Your task to perform on an android device: turn notification dots on Image 0: 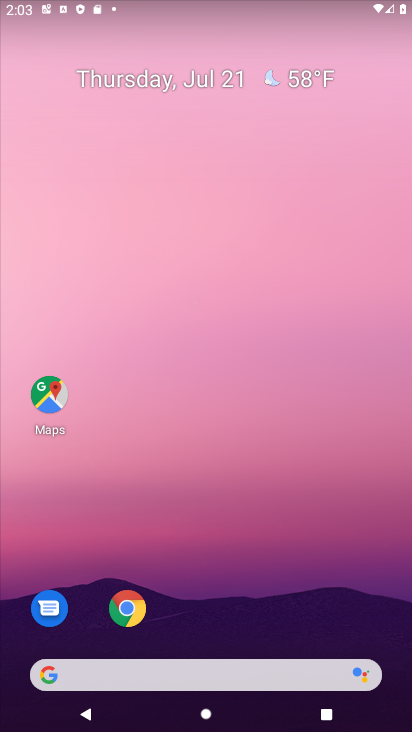
Step 0: drag from (388, 625) to (241, 53)
Your task to perform on an android device: turn notification dots on Image 1: 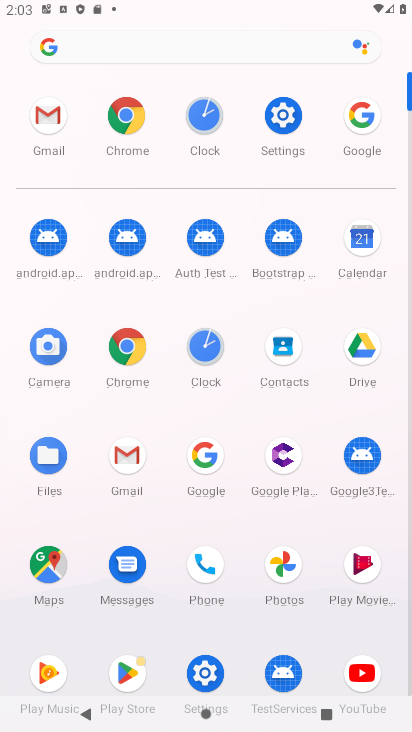
Step 1: click (278, 120)
Your task to perform on an android device: turn notification dots on Image 2: 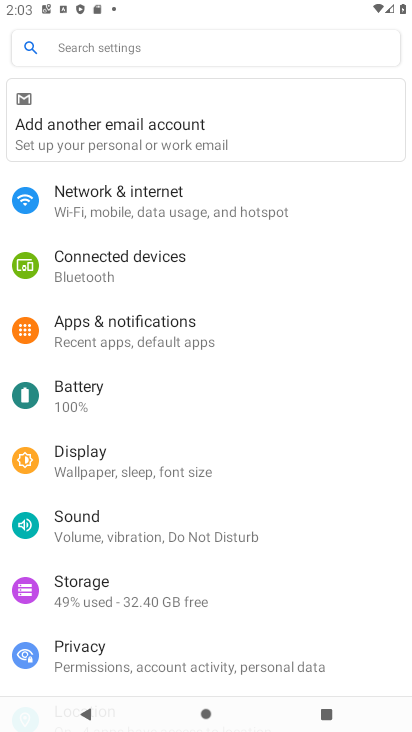
Step 2: click (186, 326)
Your task to perform on an android device: turn notification dots on Image 3: 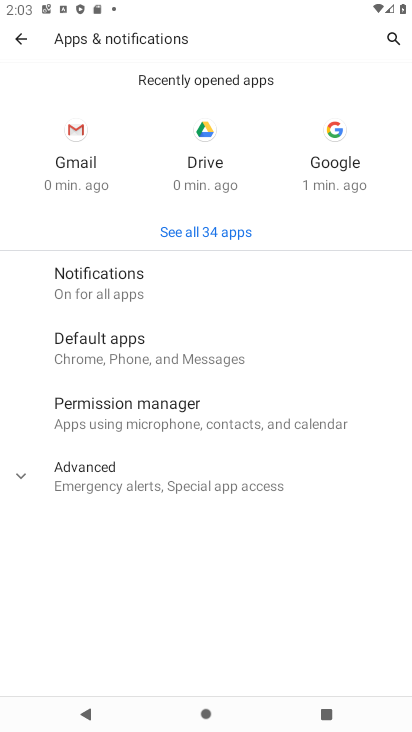
Step 3: click (81, 482)
Your task to perform on an android device: turn notification dots on Image 4: 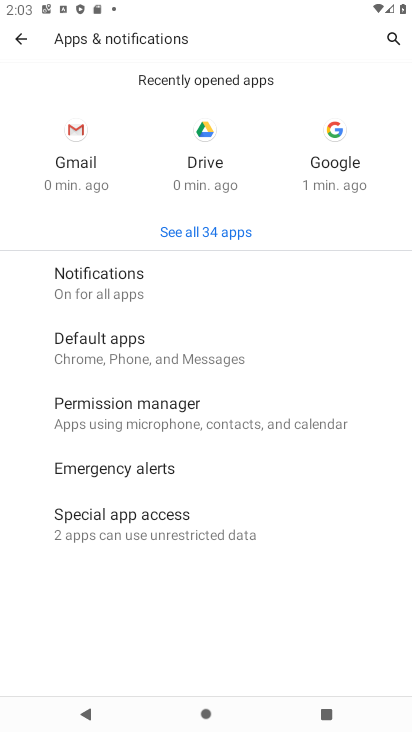
Step 4: click (132, 294)
Your task to perform on an android device: turn notification dots on Image 5: 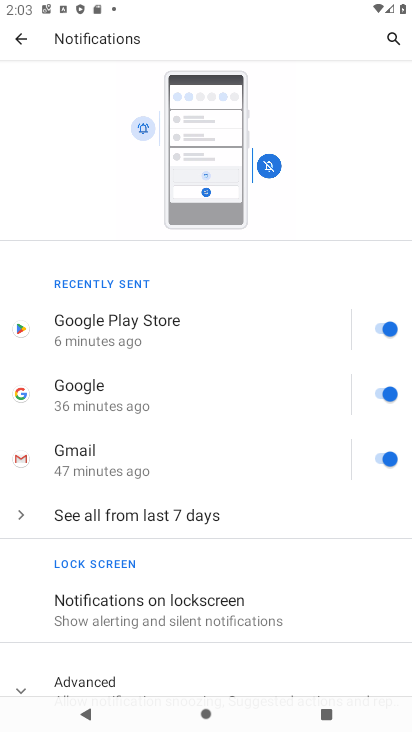
Step 5: drag from (153, 603) to (151, 299)
Your task to perform on an android device: turn notification dots on Image 6: 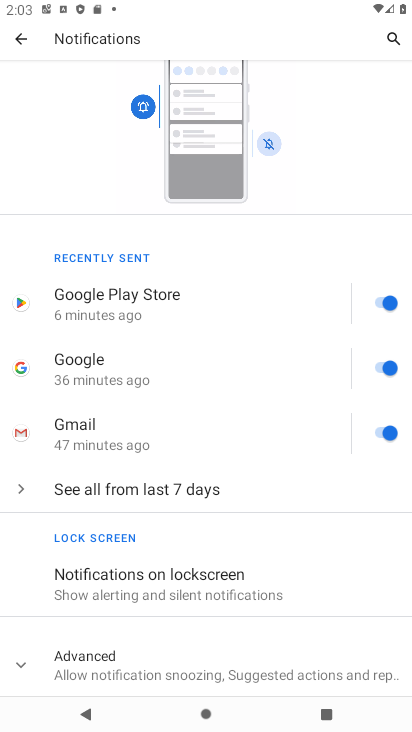
Step 6: click (100, 659)
Your task to perform on an android device: turn notification dots on Image 7: 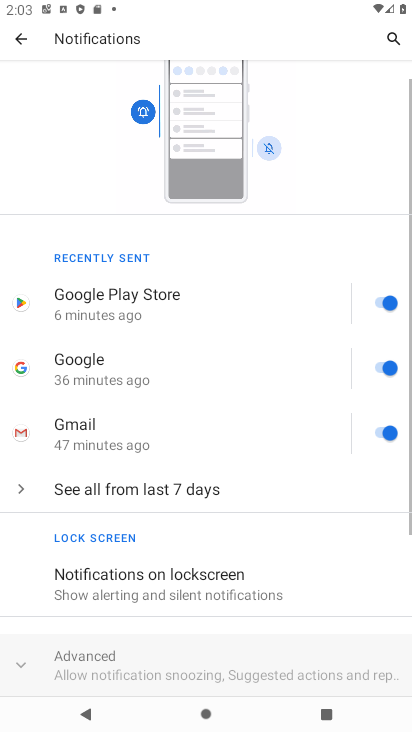
Step 7: task complete